Your task to perform on an android device: turn on priority inbox in the gmail app Image 0: 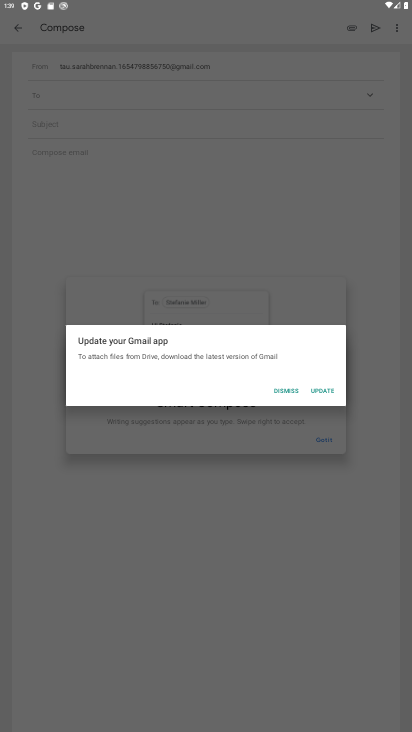
Step 0: press home button
Your task to perform on an android device: turn on priority inbox in the gmail app Image 1: 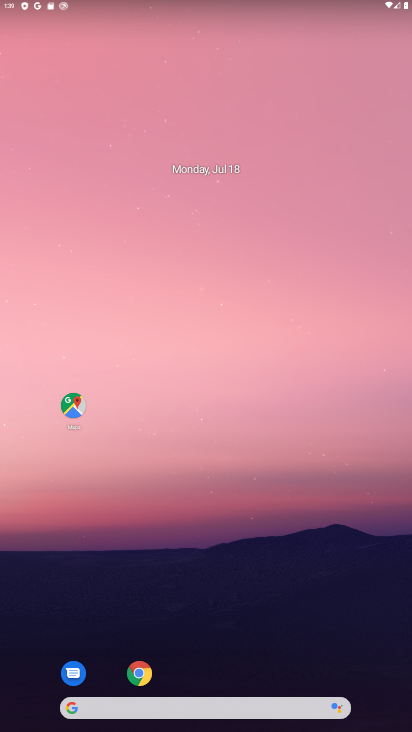
Step 1: drag from (213, 713) to (142, 222)
Your task to perform on an android device: turn on priority inbox in the gmail app Image 2: 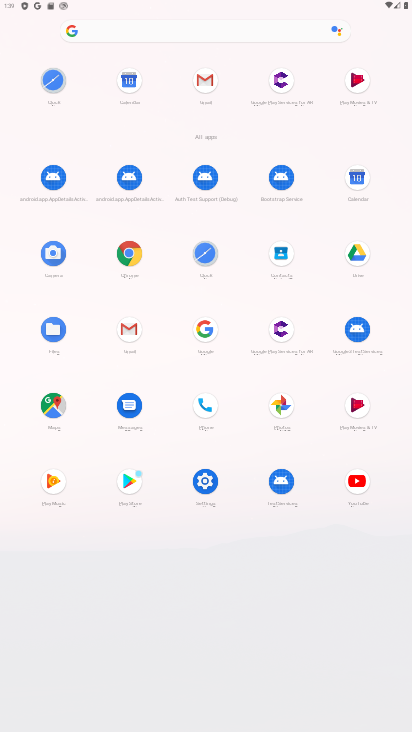
Step 2: click (203, 78)
Your task to perform on an android device: turn on priority inbox in the gmail app Image 3: 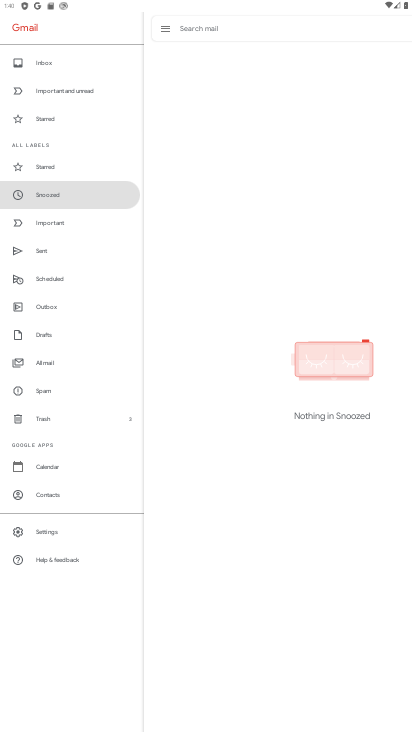
Step 3: click (49, 535)
Your task to perform on an android device: turn on priority inbox in the gmail app Image 4: 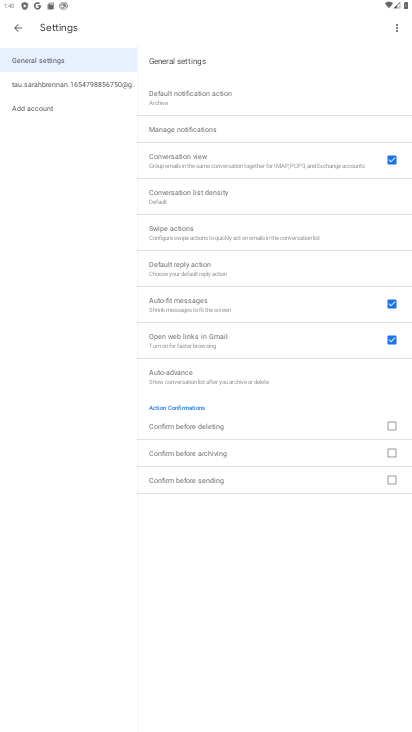
Step 4: click (91, 82)
Your task to perform on an android device: turn on priority inbox in the gmail app Image 5: 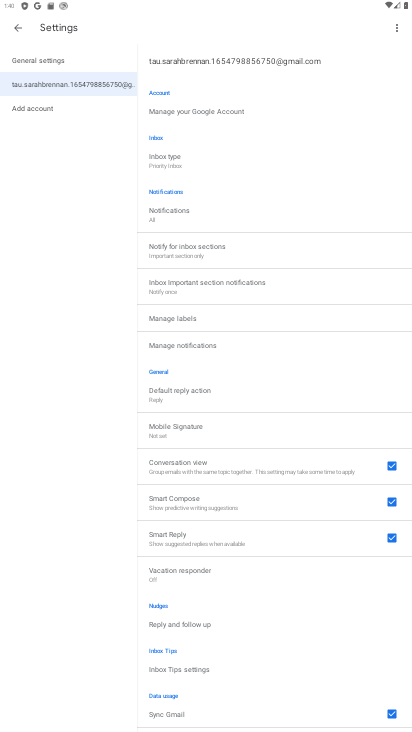
Step 5: click (181, 170)
Your task to perform on an android device: turn on priority inbox in the gmail app Image 6: 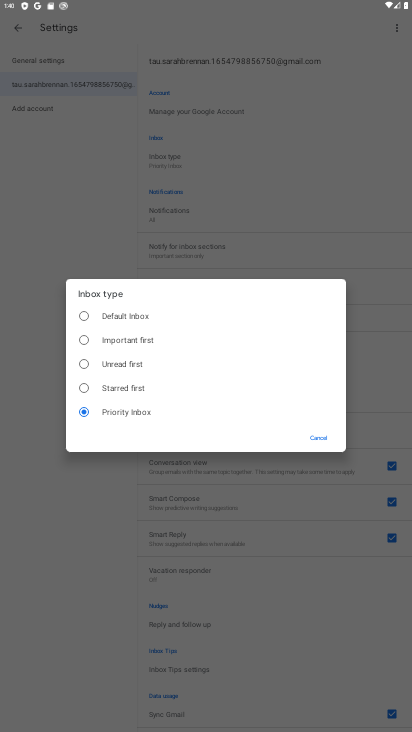
Step 6: click (88, 410)
Your task to perform on an android device: turn on priority inbox in the gmail app Image 7: 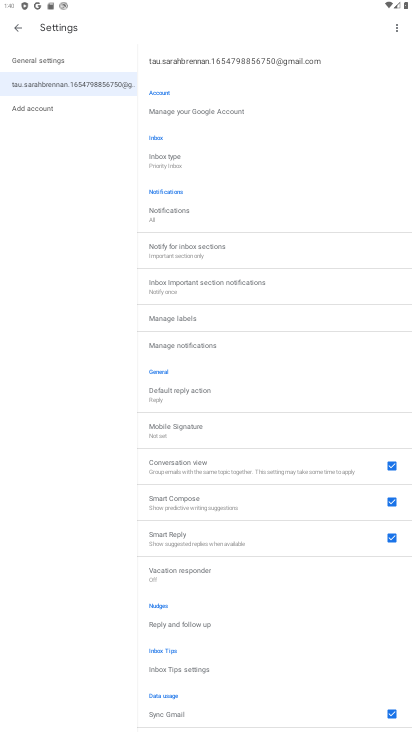
Step 7: task complete